Your task to perform on an android device: open chrome privacy settings Image 0: 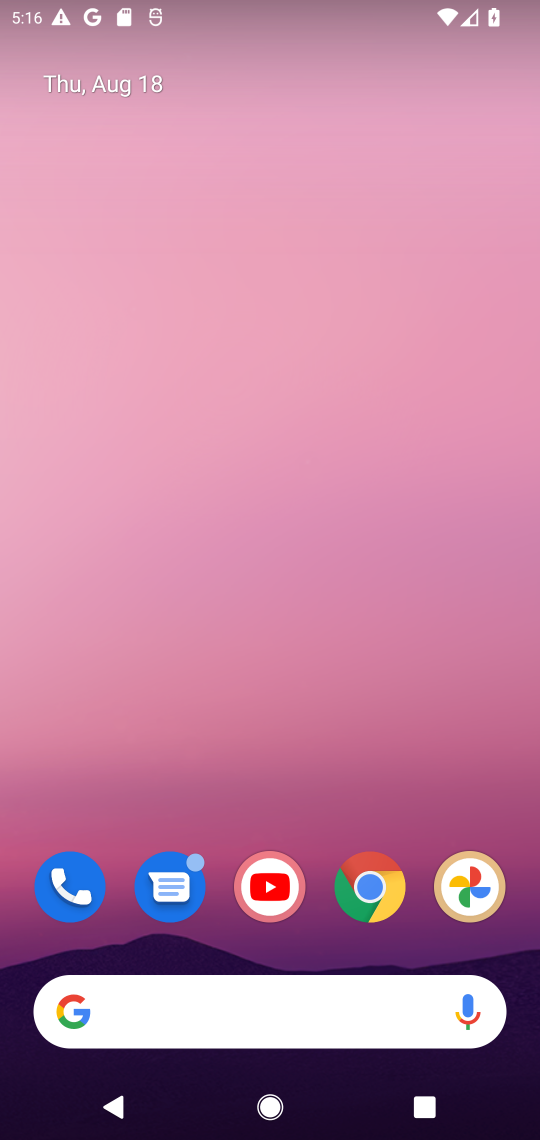
Step 0: drag from (173, 771) to (330, 170)
Your task to perform on an android device: open chrome privacy settings Image 1: 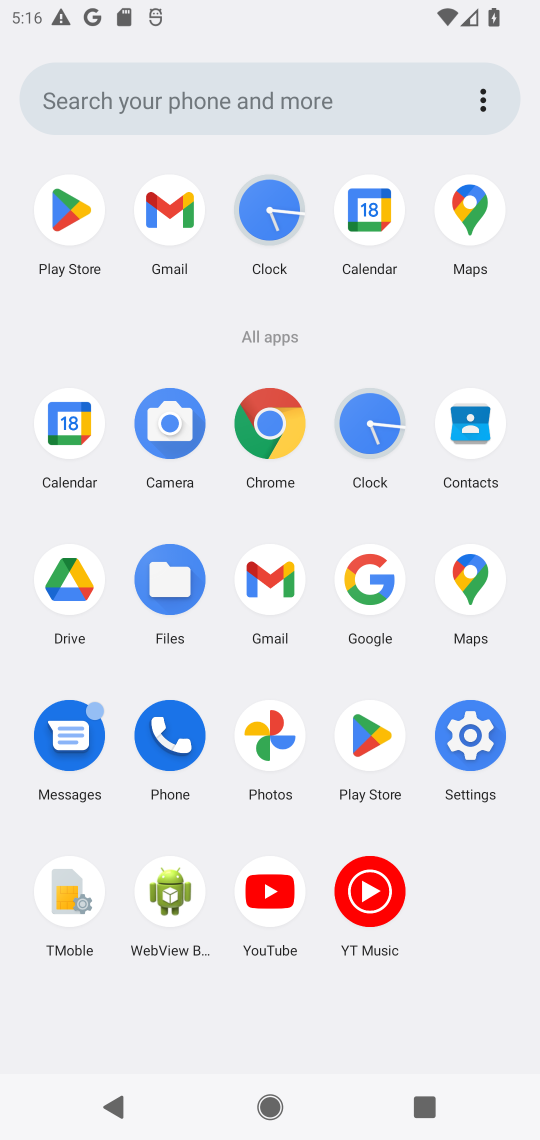
Step 1: task complete